Your task to perform on an android device: Go to display settings Image 0: 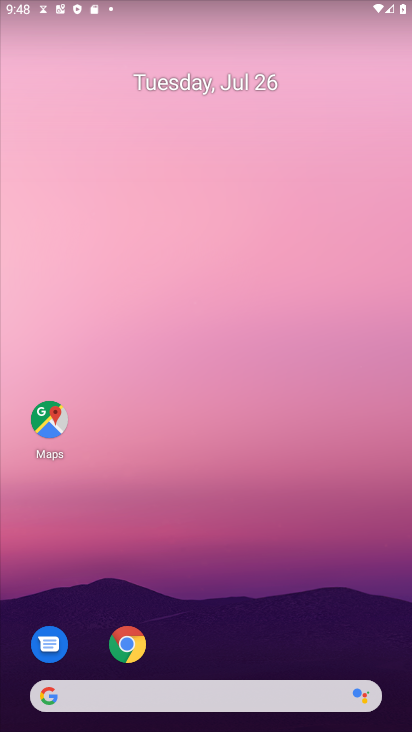
Step 0: drag from (230, 647) to (226, 13)
Your task to perform on an android device: Go to display settings Image 1: 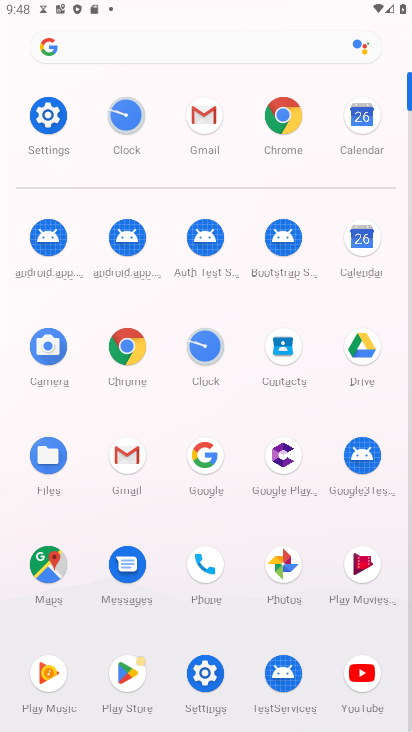
Step 1: click (197, 679)
Your task to perform on an android device: Go to display settings Image 2: 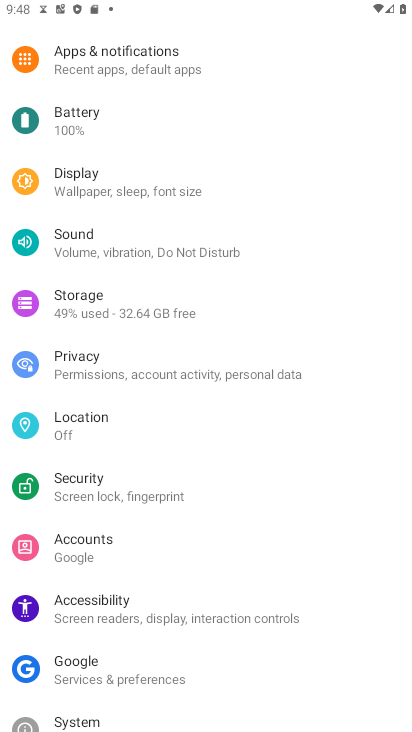
Step 2: click (124, 193)
Your task to perform on an android device: Go to display settings Image 3: 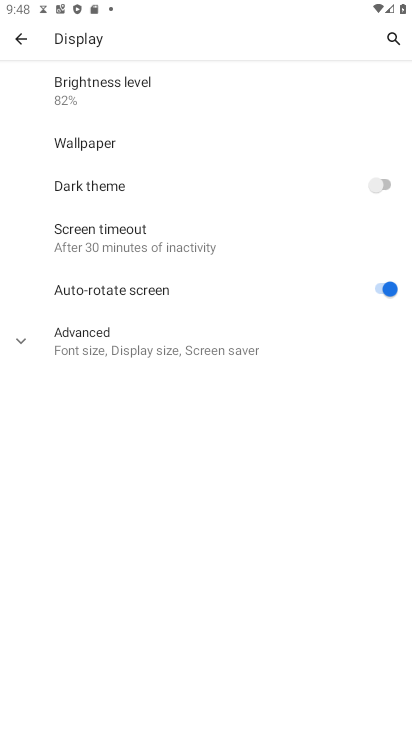
Step 3: task complete